Your task to perform on an android device: Open settings on Google Maps Image 0: 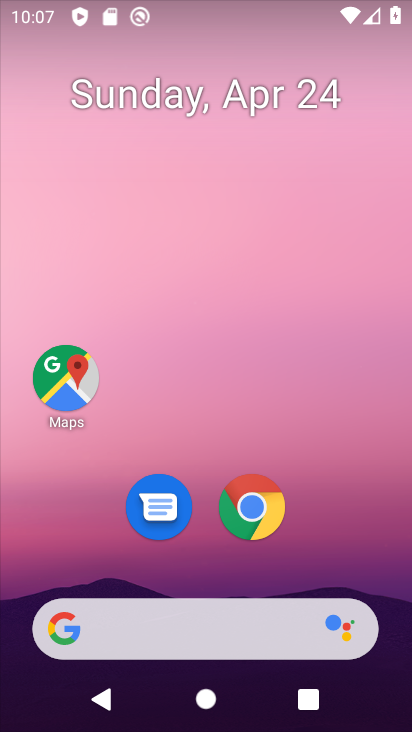
Step 0: click (69, 381)
Your task to perform on an android device: Open settings on Google Maps Image 1: 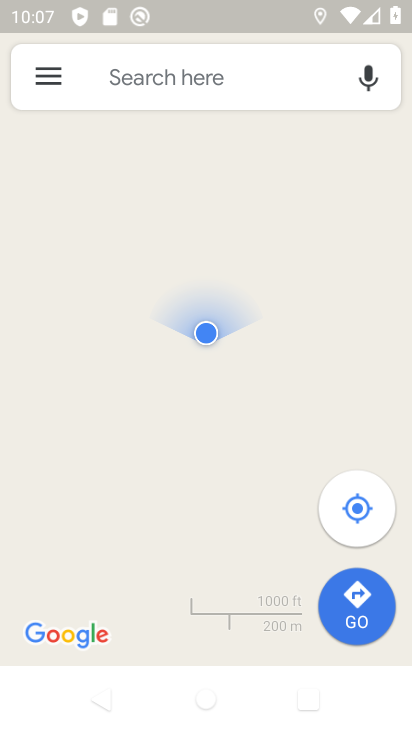
Step 1: click (51, 75)
Your task to perform on an android device: Open settings on Google Maps Image 2: 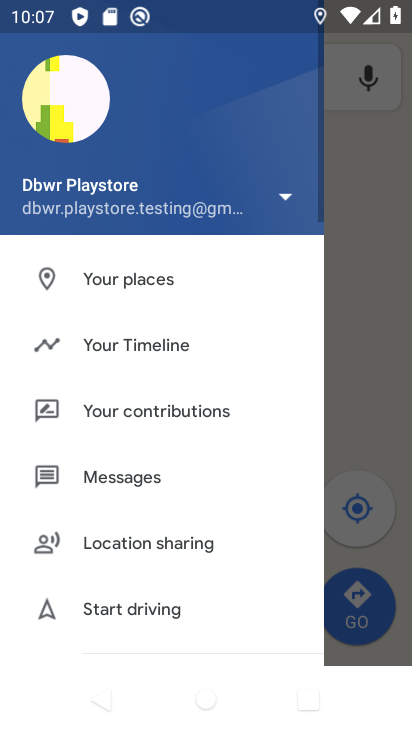
Step 2: drag from (234, 587) to (255, 150)
Your task to perform on an android device: Open settings on Google Maps Image 3: 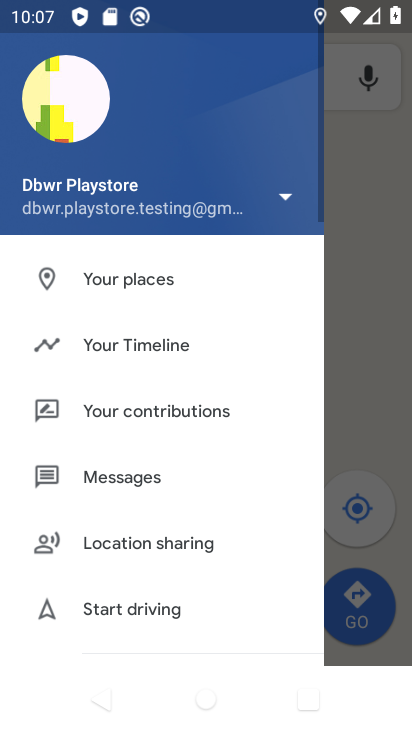
Step 3: drag from (179, 642) to (210, 202)
Your task to perform on an android device: Open settings on Google Maps Image 4: 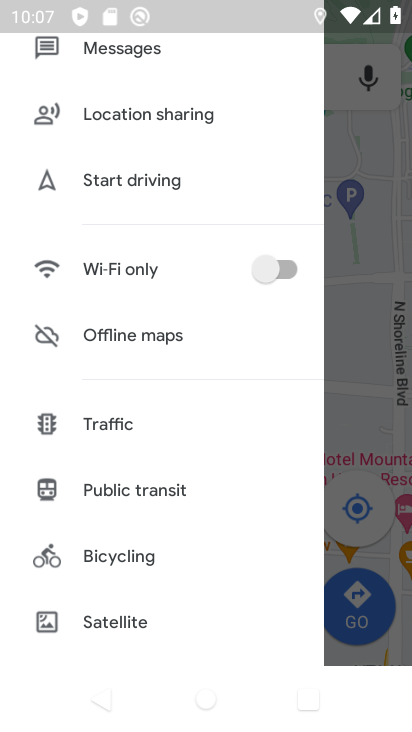
Step 4: drag from (217, 599) to (207, 102)
Your task to perform on an android device: Open settings on Google Maps Image 5: 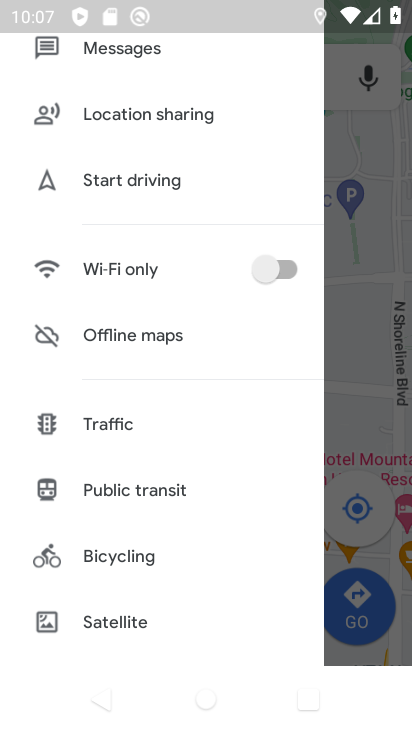
Step 5: drag from (200, 590) to (218, 157)
Your task to perform on an android device: Open settings on Google Maps Image 6: 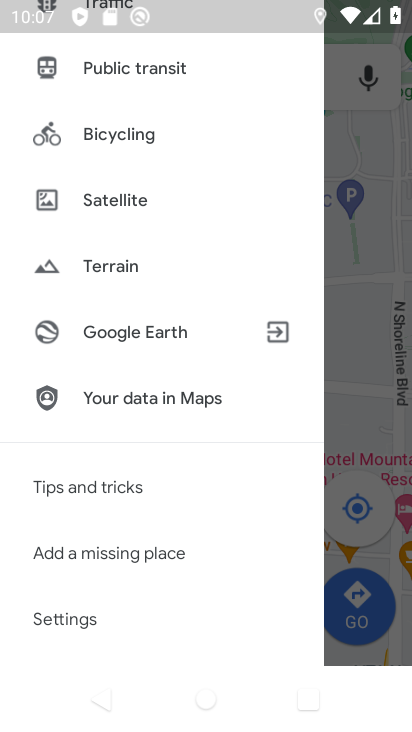
Step 6: click (62, 617)
Your task to perform on an android device: Open settings on Google Maps Image 7: 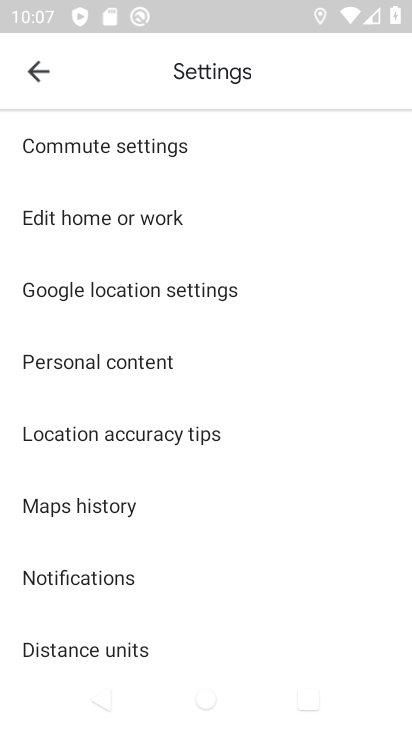
Step 7: task complete